Your task to perform on an android device: Go to Yahoo.com Image 0: 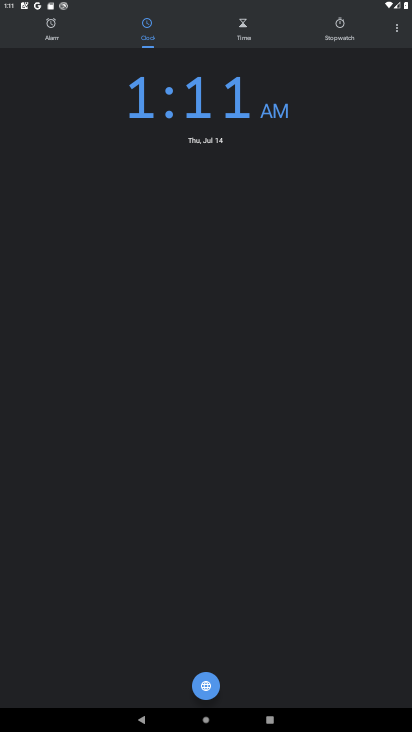
Step 0: press home button
Your task to perform on an android device: Go to Yahoo.com Image 1: 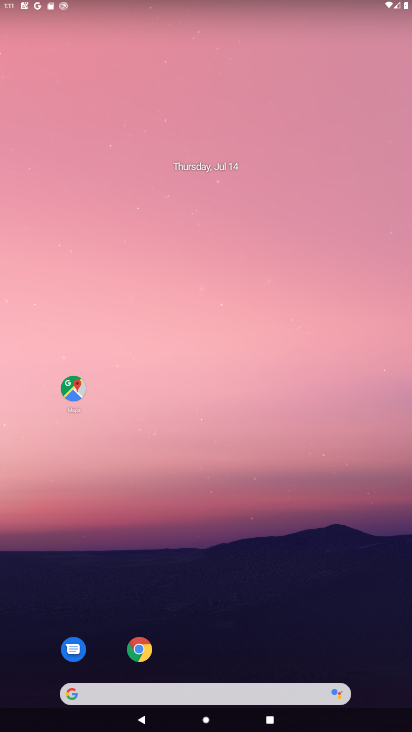
Step 1: drag from (304, 677) to (346, 3)
Your task to perform on an android device: Go to Yahoo.com Image 2: 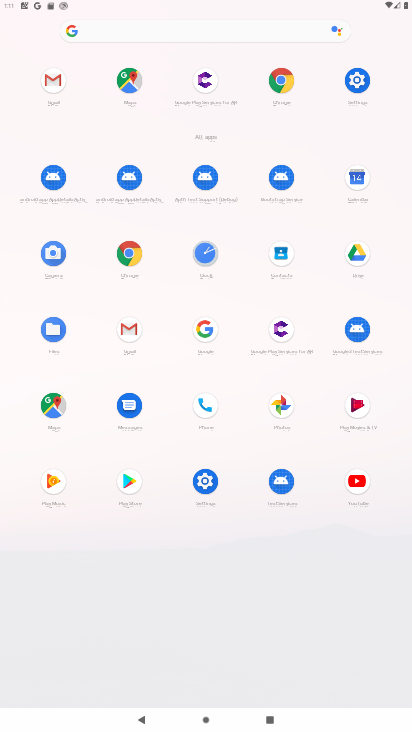
Step 2: click (131, 255)
Your task to perform on an android device: Go to Yahoo.com Image 3: 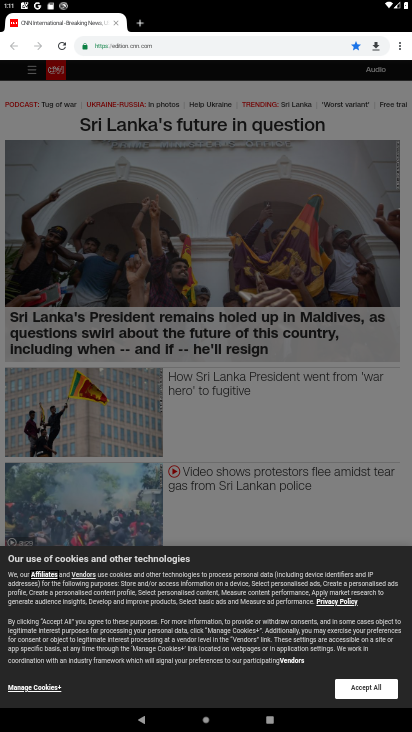
Step 3: click (209, 42)
Your task to perform on an android device: Go to Yahoo.com Image 4: 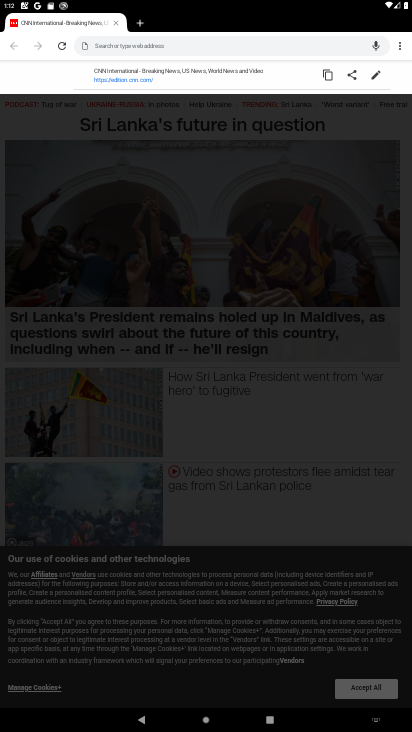
Step 4: type "yahoo.com"
Your task to perform on an android device: Go to Yahoo.com Image 5: 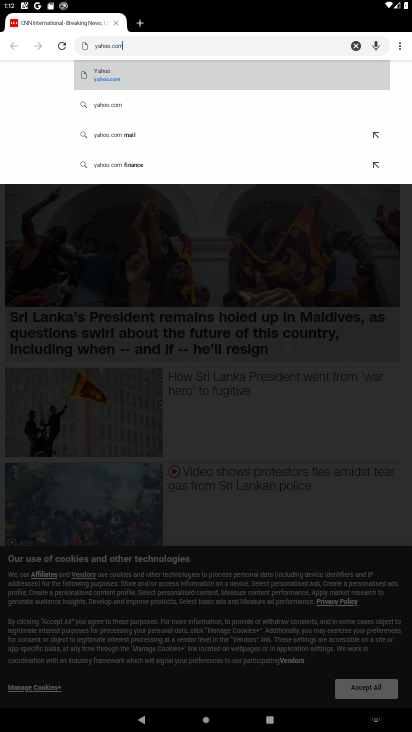
Step 5: click (144, 83)
Your task to perform on an android device: Go to Yahoo.com Image 6: 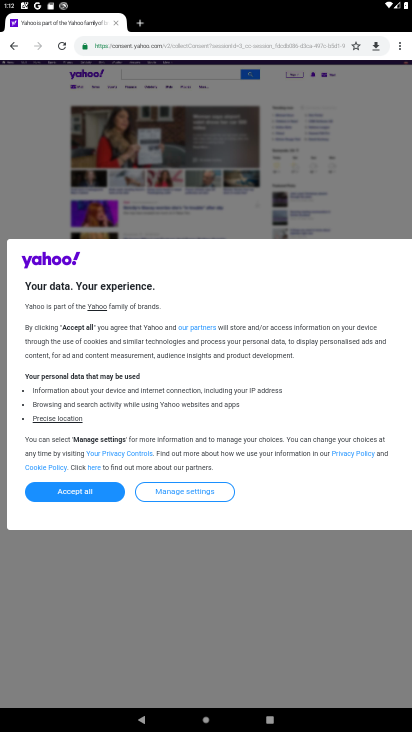
Step 6: task complete